Your task to perform on an android device: Open Reddit.com Image 0: 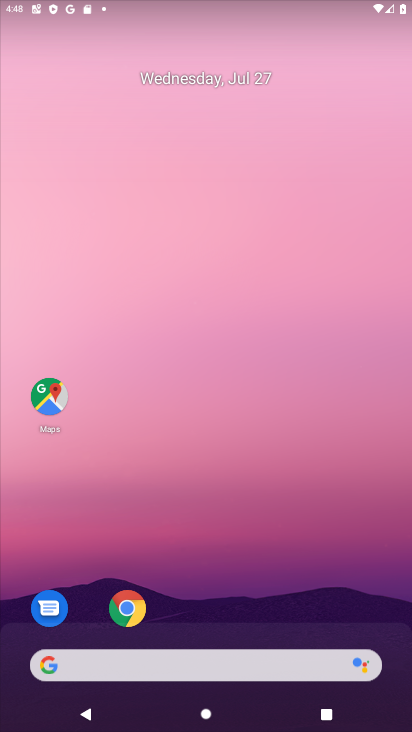
Step 0: task complete